Your task to perform on an android device: Open Maps and search for coffee Image 0: 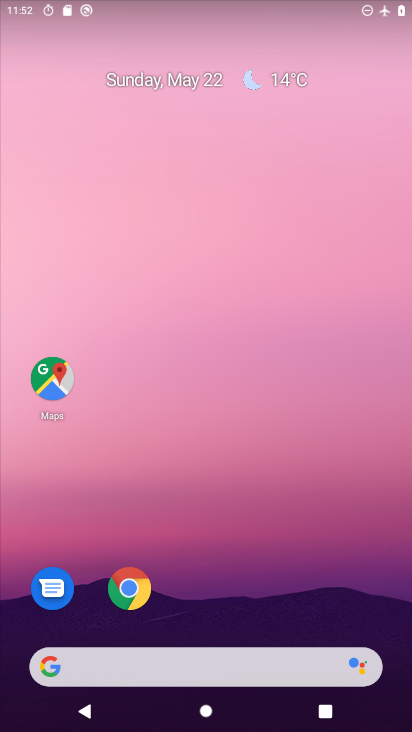
Step 0: click (72, 380)
Your task to perform on an android device: Open Maps and search for coffee Image 1: 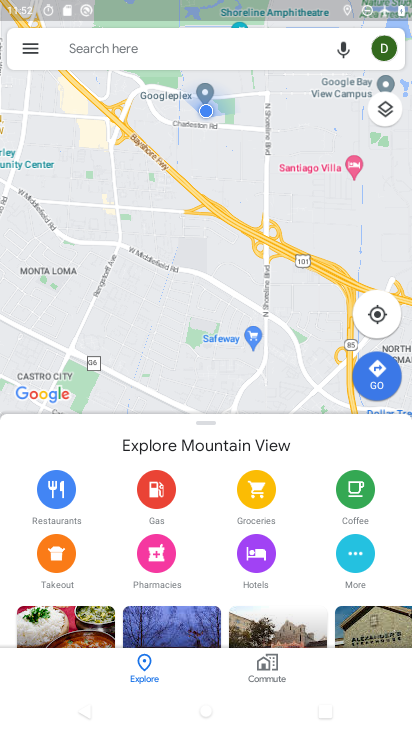
Step 1: click (287, 50)
Your task to perform on an android device: Open Maps and search for coffee Image 2: 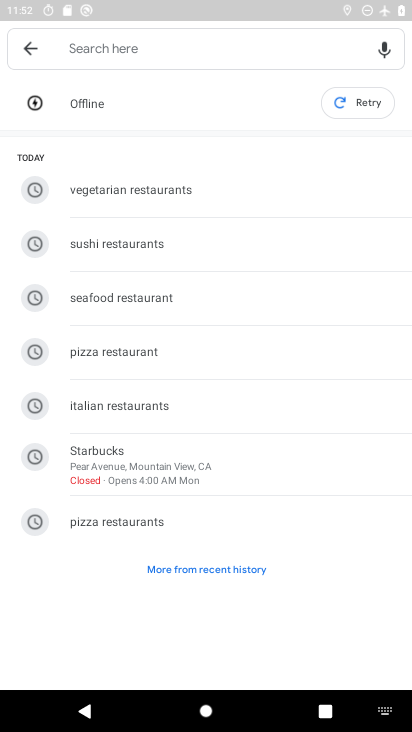
Step 2: type " coffee"
Your task to perform on an android device: Open Maps and search for coffee Image 3: 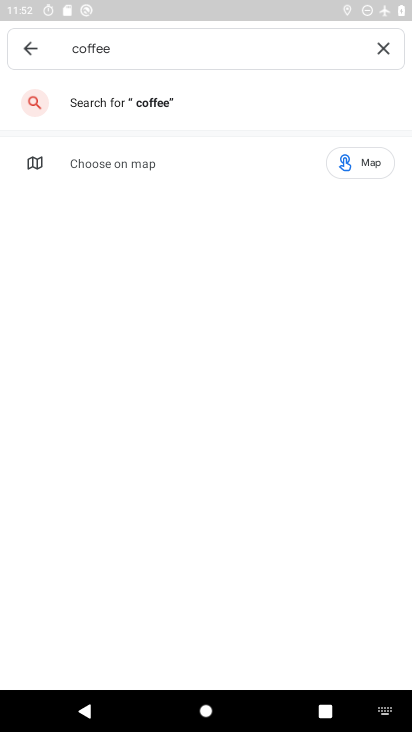
Step 3: task complete